Your task to perform on an android device: set an alarm Image 0: 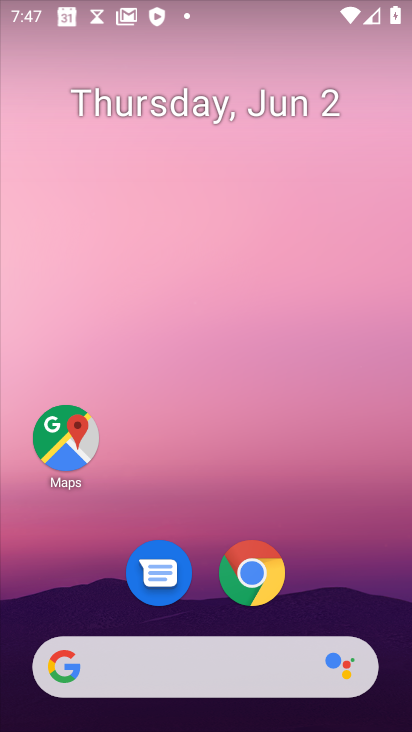
Step 0: press home button
Your task to perform on an android device: set an alarm Image 1: 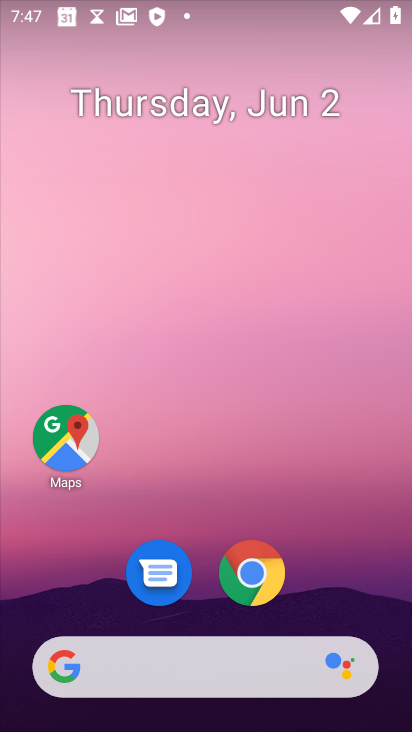
Step 1: click (254, 577)
Your task to perform on an android device: set an alarm Image 2: 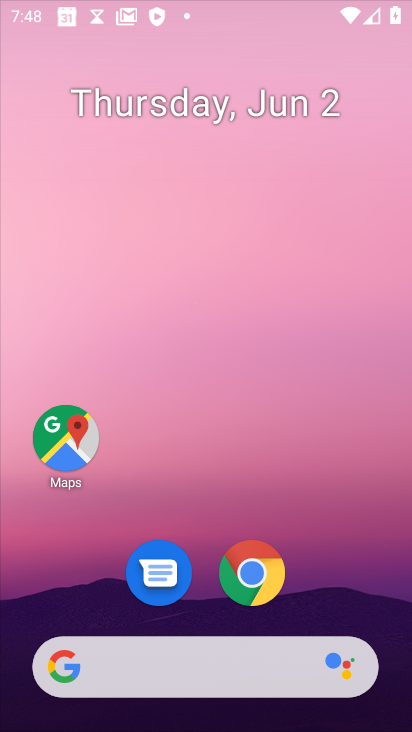
Step 2: press home button
Your task to perform on an android device: set an alarm Image 3: 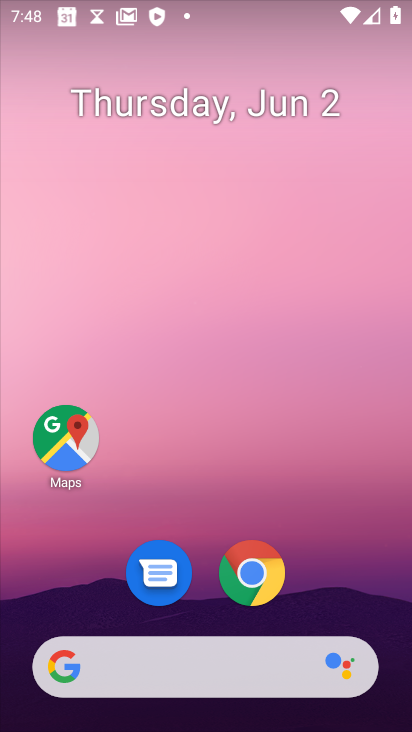
Step 3: drag from (210, 663) to (338, 80)
Your task to perform on an android device: set an alarm Image 4: 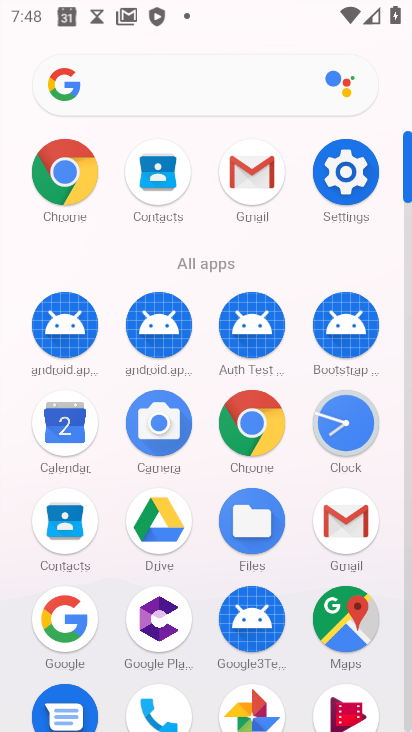
Step 4: click (342, 431)
Your task to perform on an android device: set an alarm Image 5: 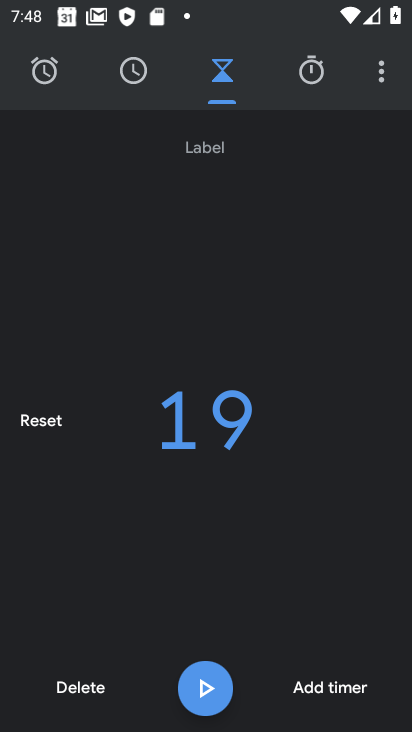
Step 5: click (49, 71)
Your task to perform on an android device: set an alarm Image 6: 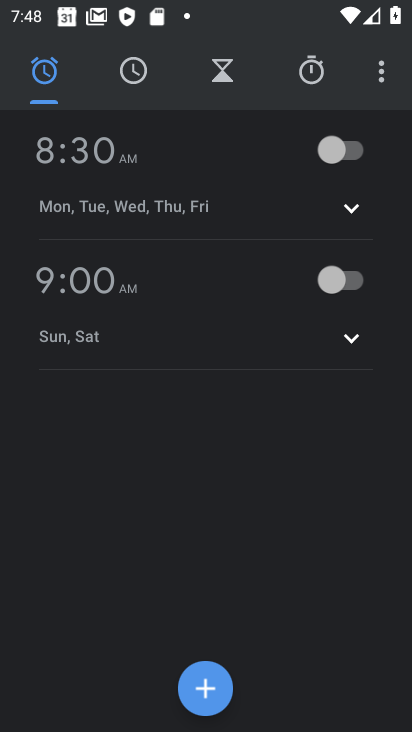
Step 6: click (351, 156)
Your task to perform on an android device: set an alarm Image 7: 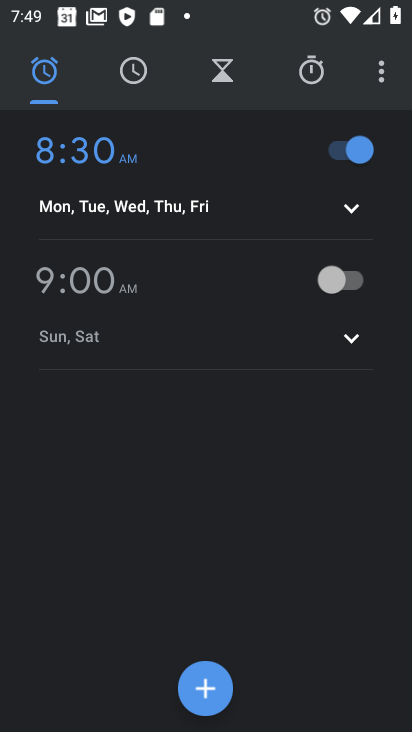
Step 7: task complete